Your task to perform on an android device: When is my next meeting? Image 0: 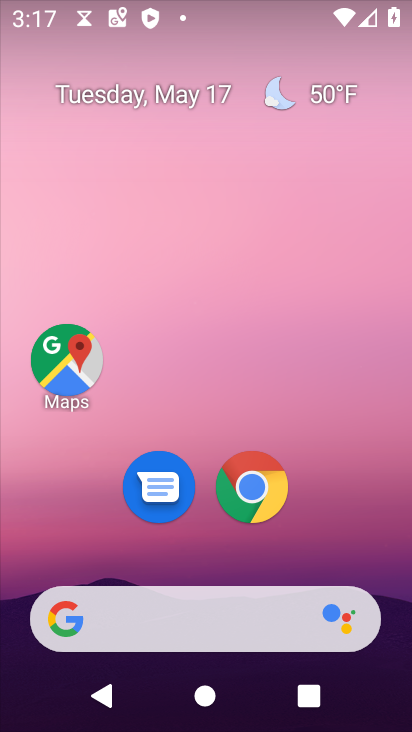
Step 0: drag from (389, 582) to (304, 57)
Your task to perform on an android device: When is my next meeting? Image 1: 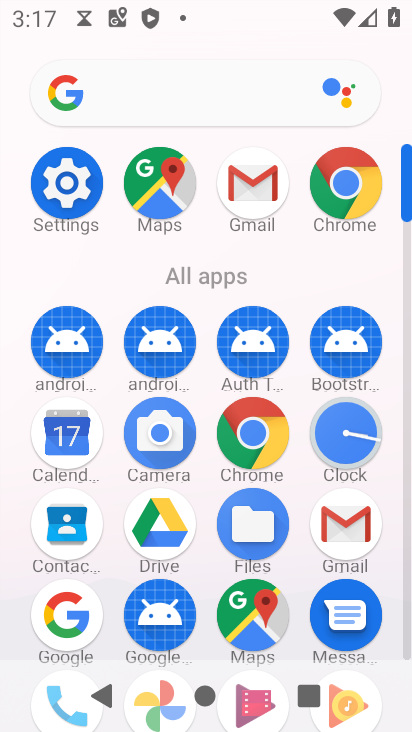
Step 1: click (408, 644)
Your task to perform on an android device: When is my next meeting? Image 2: 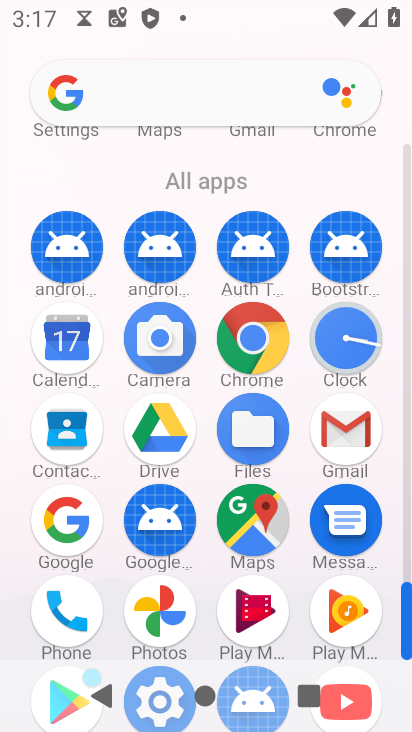
Step 2: click (64, 333)
Your task to perform on an android device: When is my next meeting? Image 3: 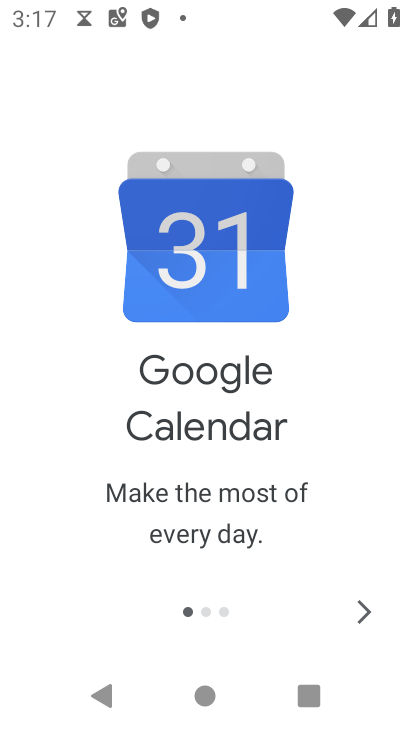
Step 3: click (364, 614)
Your task to perform on an android device: When is my next meeting? Image 4: 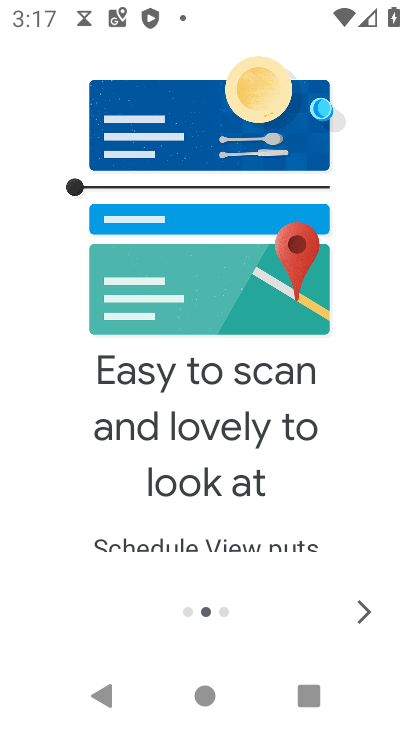
Step 4: click (364, 614)
Your task to perform on an android device: When is my next meeting? Image 5: 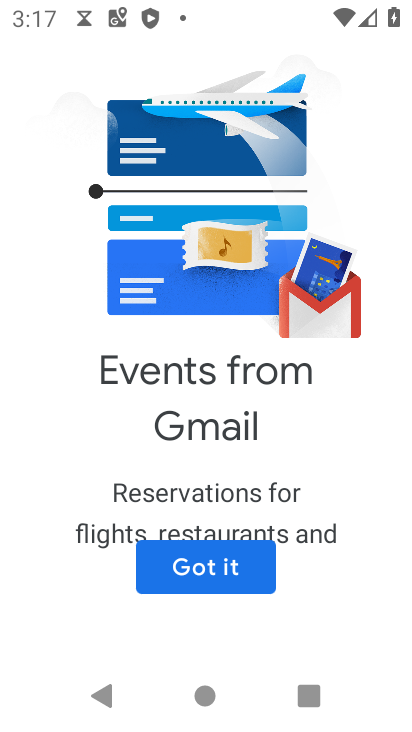
Step 5: click (364, 614)
Your task to perform on an android device: When is my next meeting? Image 6: 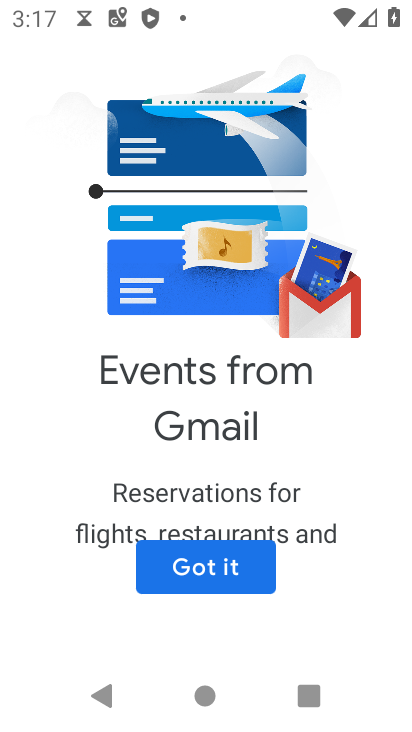
Step 6: click (238, 583)
Your task to perform on an android device: When is my next meeting? Image 7: 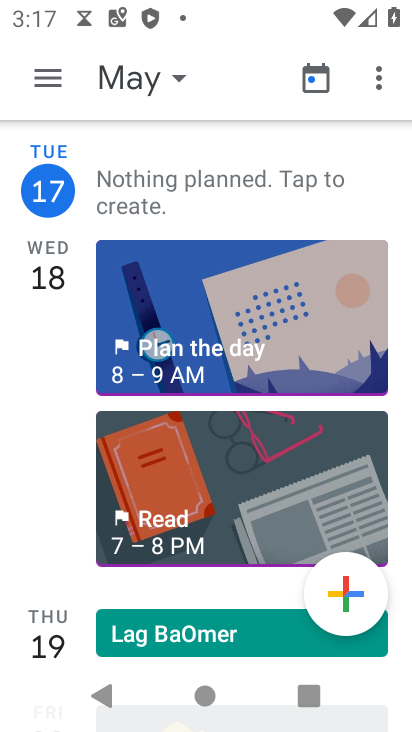
Step 7: click (47, 78)
Your task to perform on an android device: When is my next meeting? Image 8: 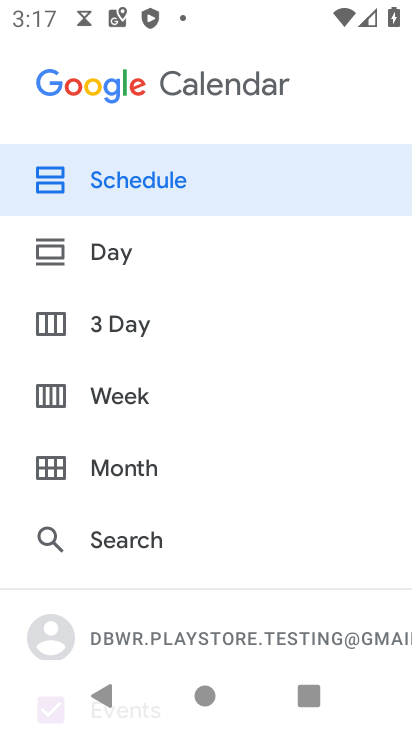
Step 8: click (145, 187)
Your task to perform on an android device: When is my next meeting? Image 9: 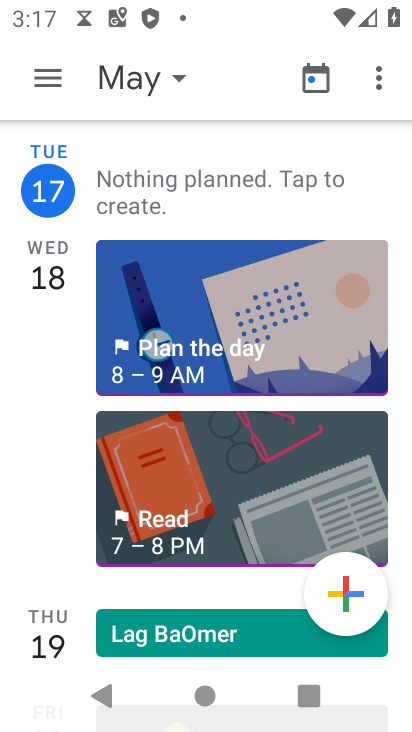
Step 9: task complete